Your task to perform on an android device: Search for "dell alienware" on ebay, select the first entry, and add it to the cart. Image 0: 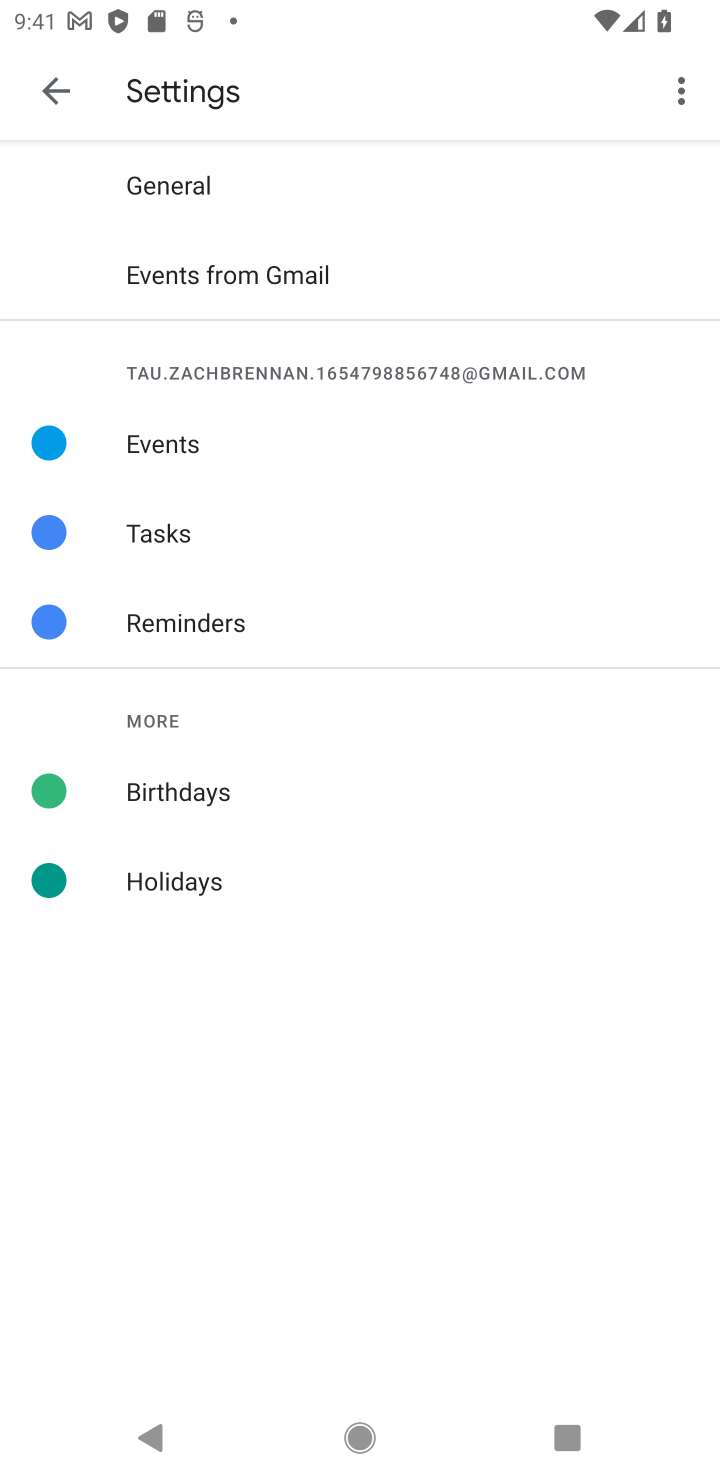
Step 0: press home button
Your task to perform on an android device: Search for "dell alienware" on ebay, select the first entry, and add it to the cart. Image 1: 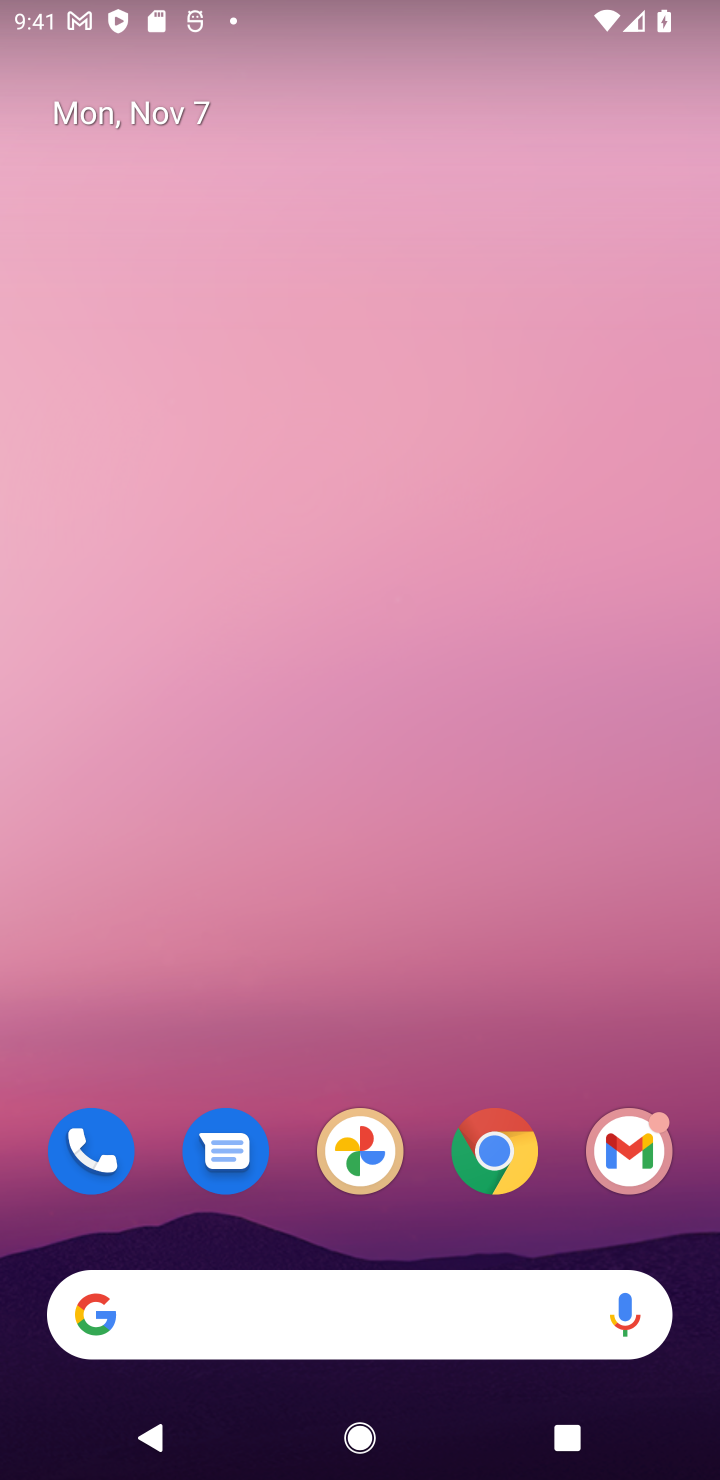
Step 1: click (487, 1156)
Your task to perform on an android device: Search for "dell alienware" on ebay, select the first entry, and add it to the cart. Image 2: 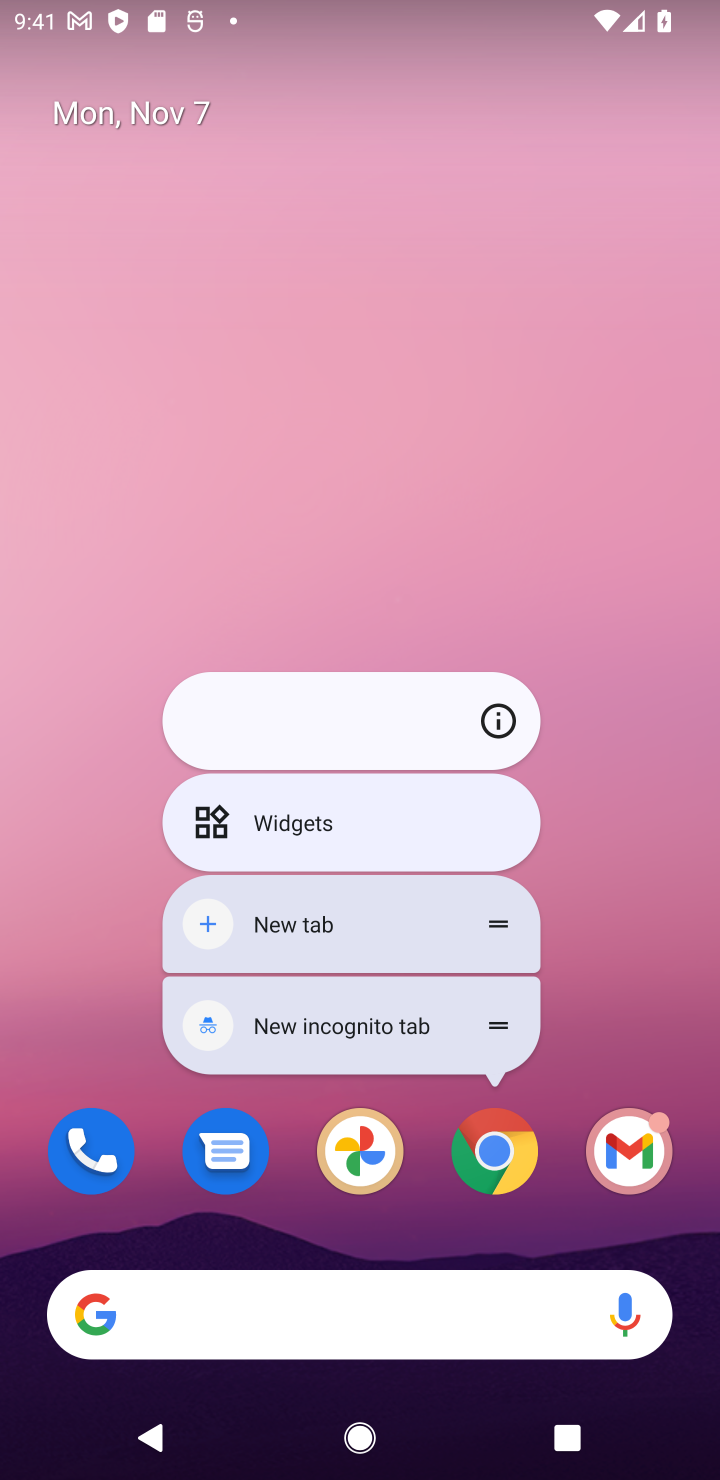
Step 2: click (487, 1158)
Your task to perform on an android device: Search for "dell alienware" on ebay, select the first entry, and add it to the cart. Image 3: 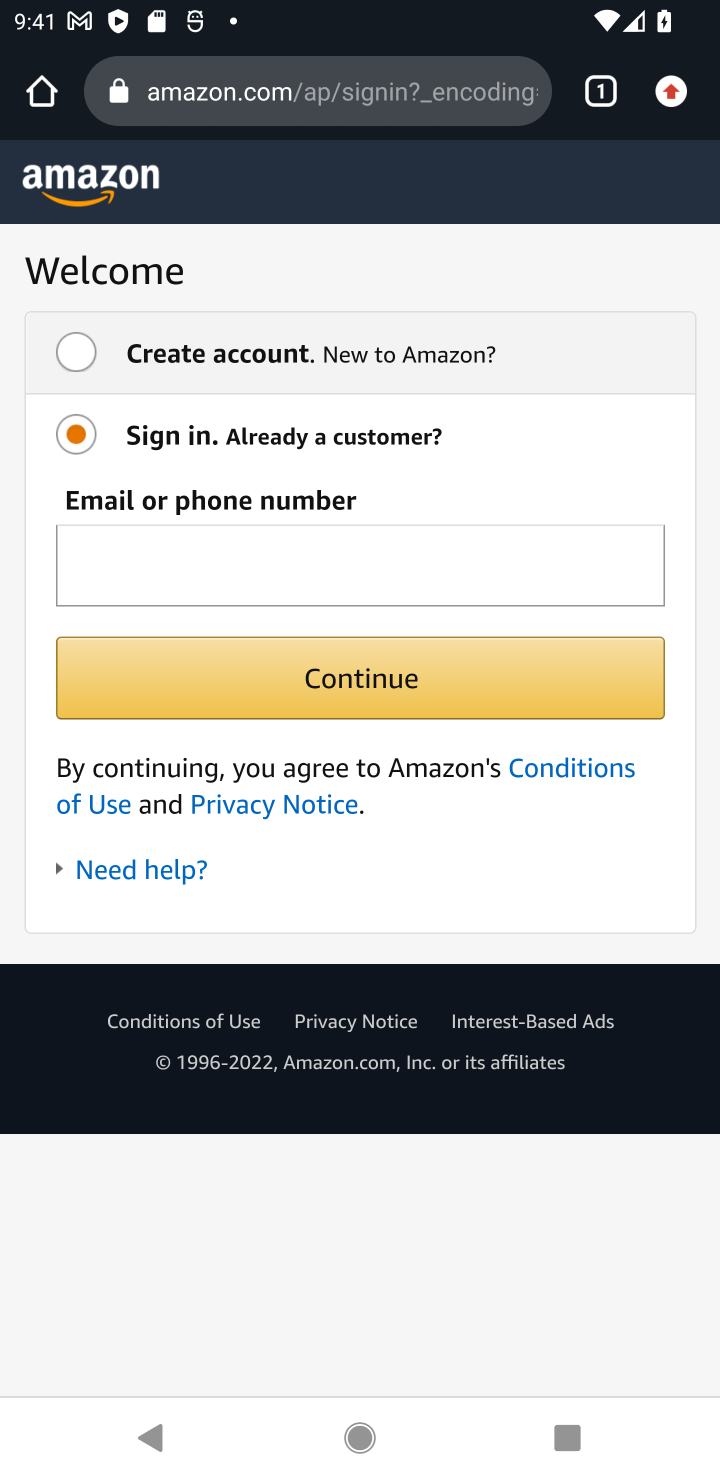
Step 3: click (325, 98)
Your task to perform on an android device: Search for "dell alienware" on ebay, select the first entry, and add it to the cart. Image 4: 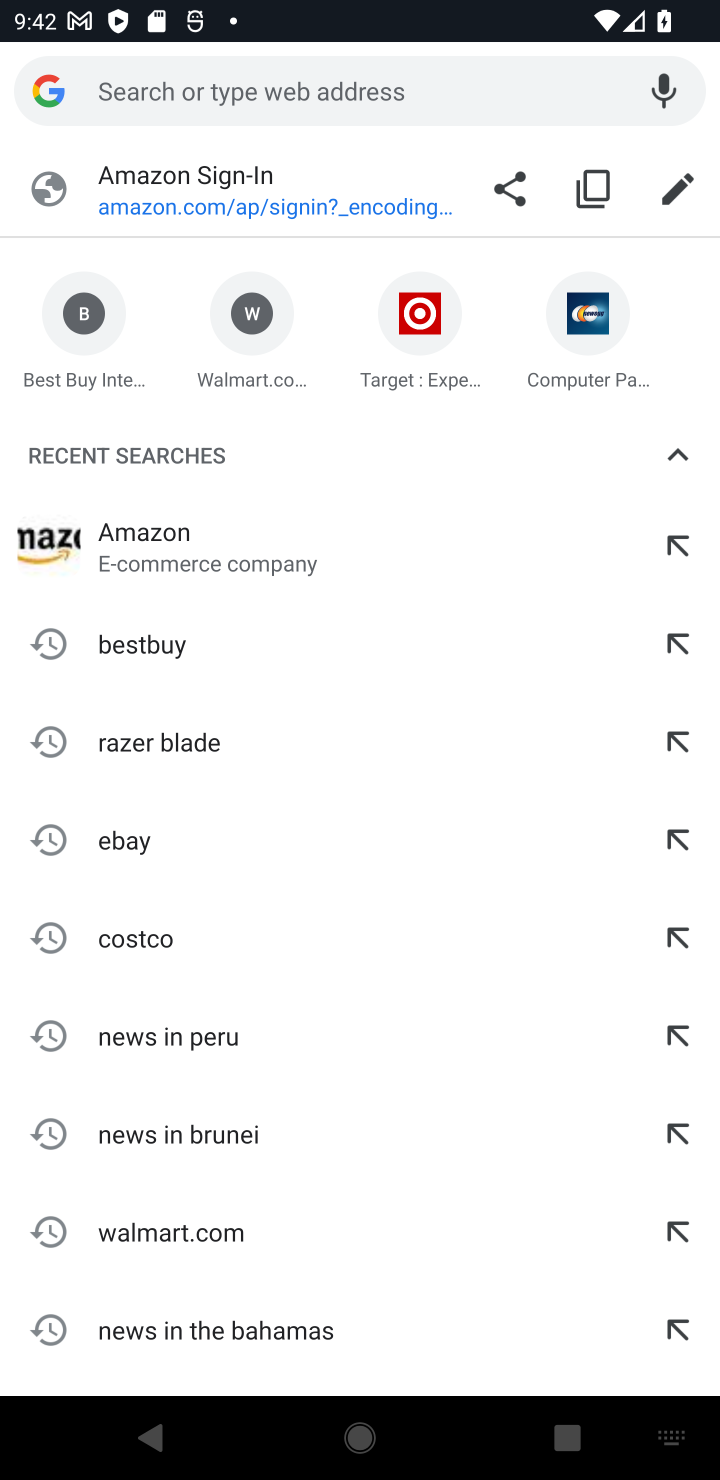
Step 4: click (127, 834)
Your task to perform on an android device: Search for "dell alienware" on ebay, select the first entry, and add it to the cart. Image 5: 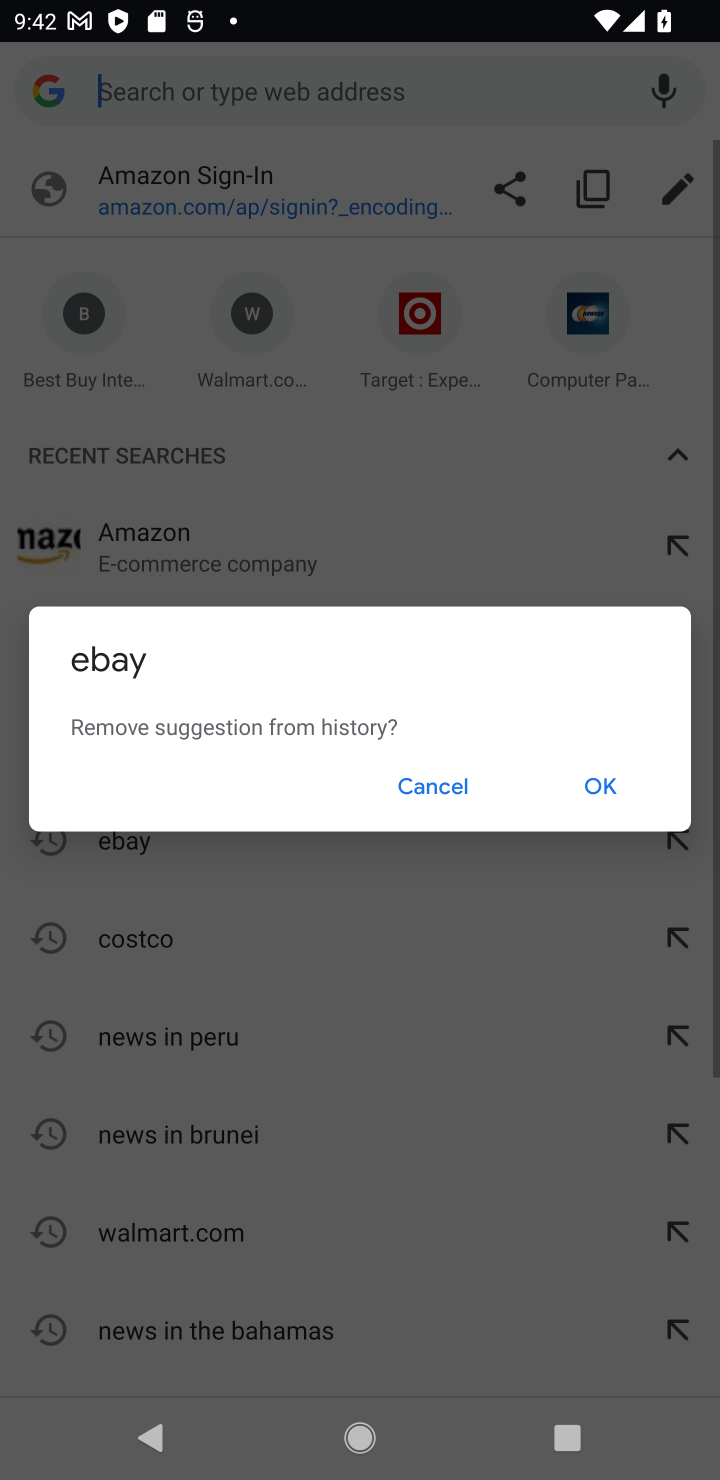
Step 5: click (445, 783)
Your task to perform on an android device: Search for "dell alienware" on ebay, select the first entry, and add it to the cart. Image 6: 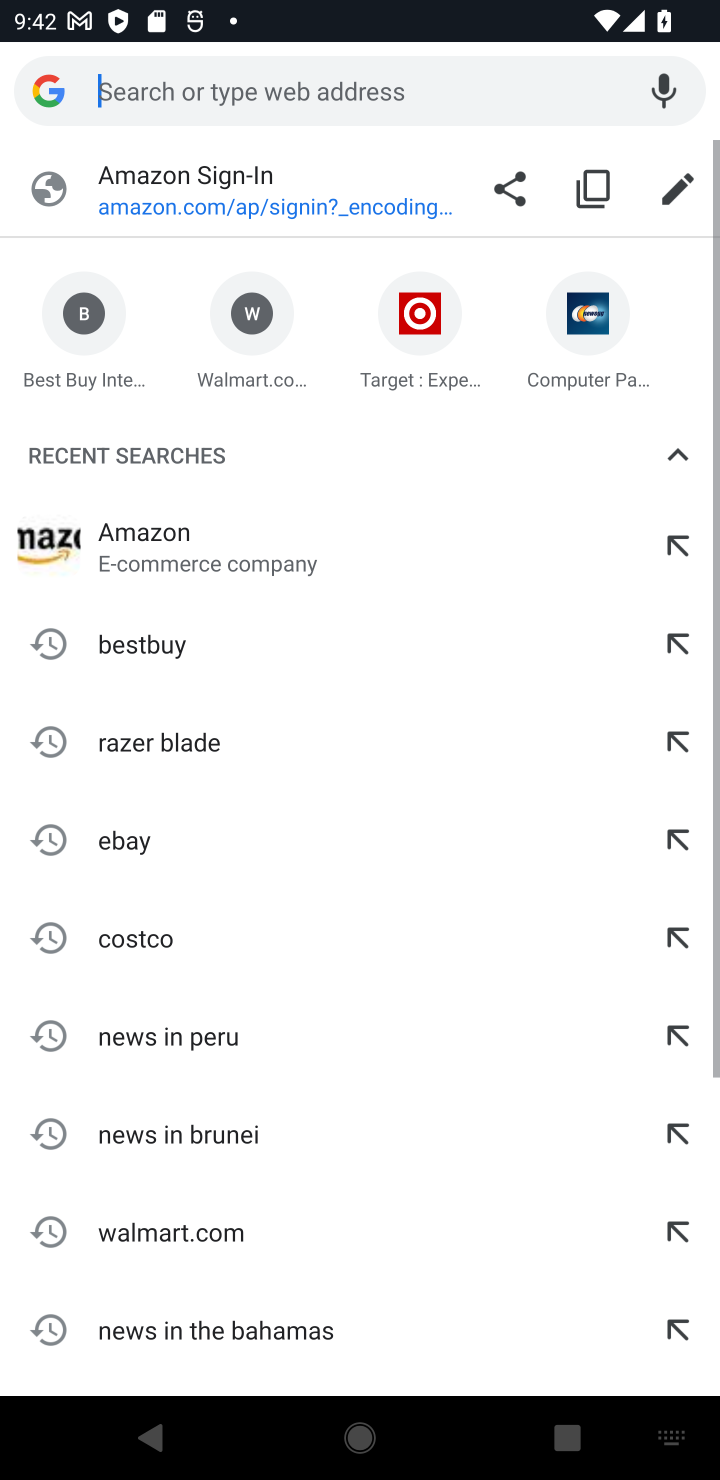
Step 6: click (103, 835)
Your task to perform on an android device: Search for "dell alienware" on ebay, select the first entry, and add it to the cart. Image 7: 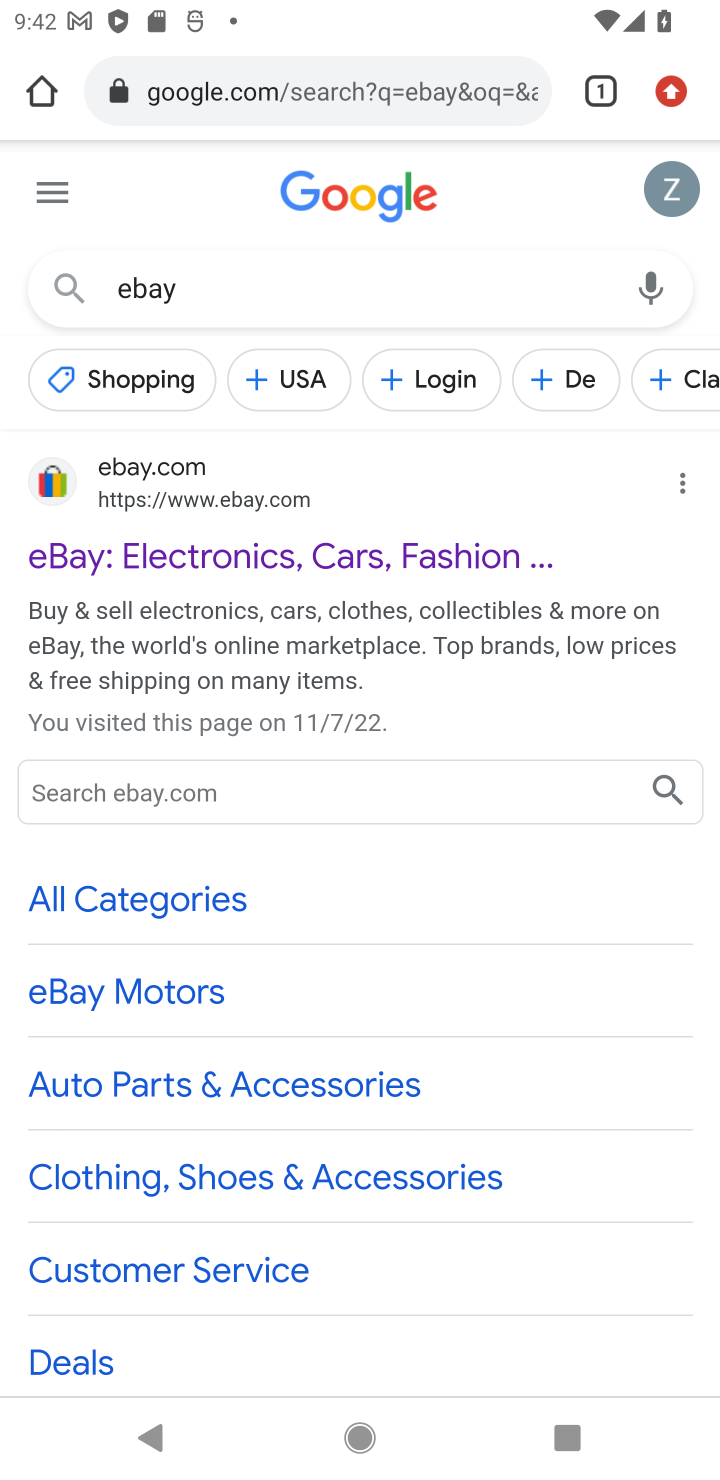
Step 7: click (242, 548)
Your task to perform on an android device: Search for "dell alienware" on ebay, select the first entry, and add it to the cart. Image 8: 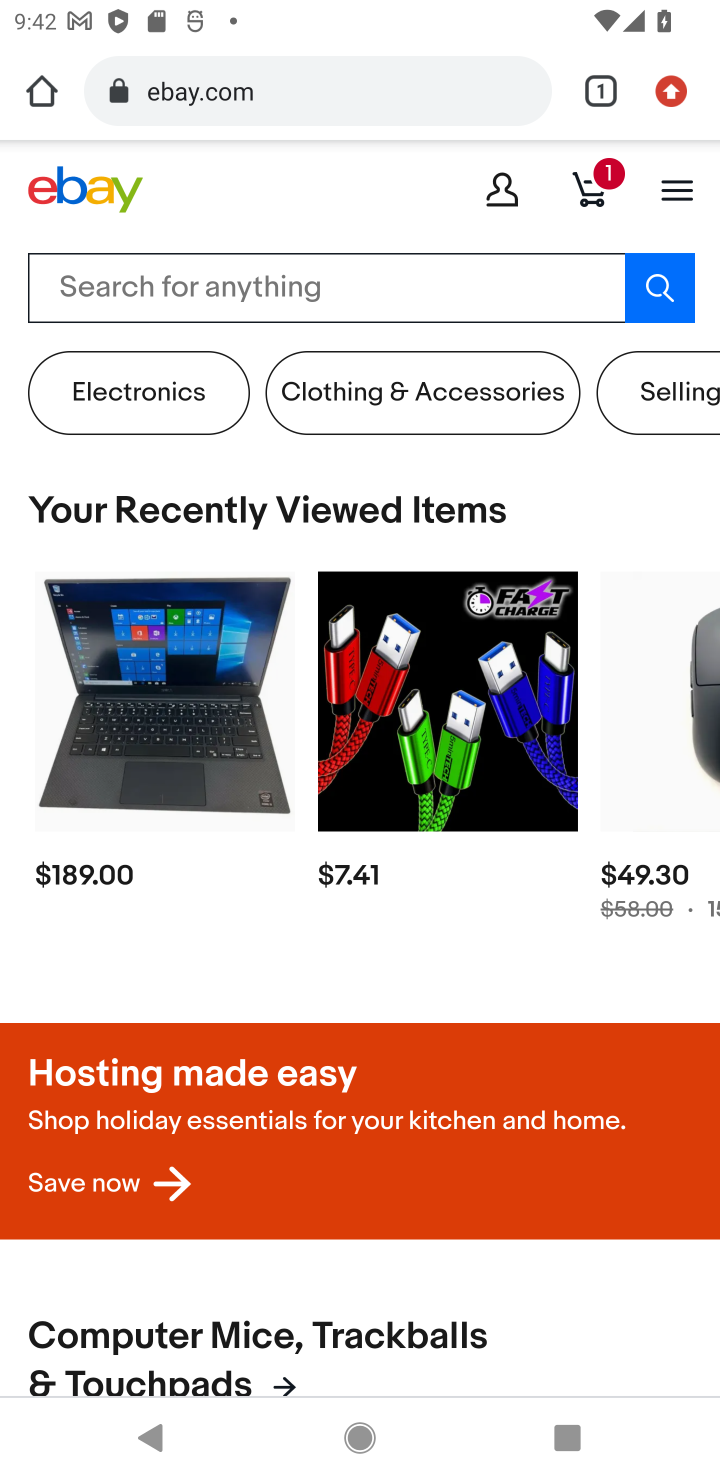
Step 8: click (142, 284)
Your task to perform on an android device: Search for "dell alienware" on ebay, select the first entry, and add it to the cart. Image 9: 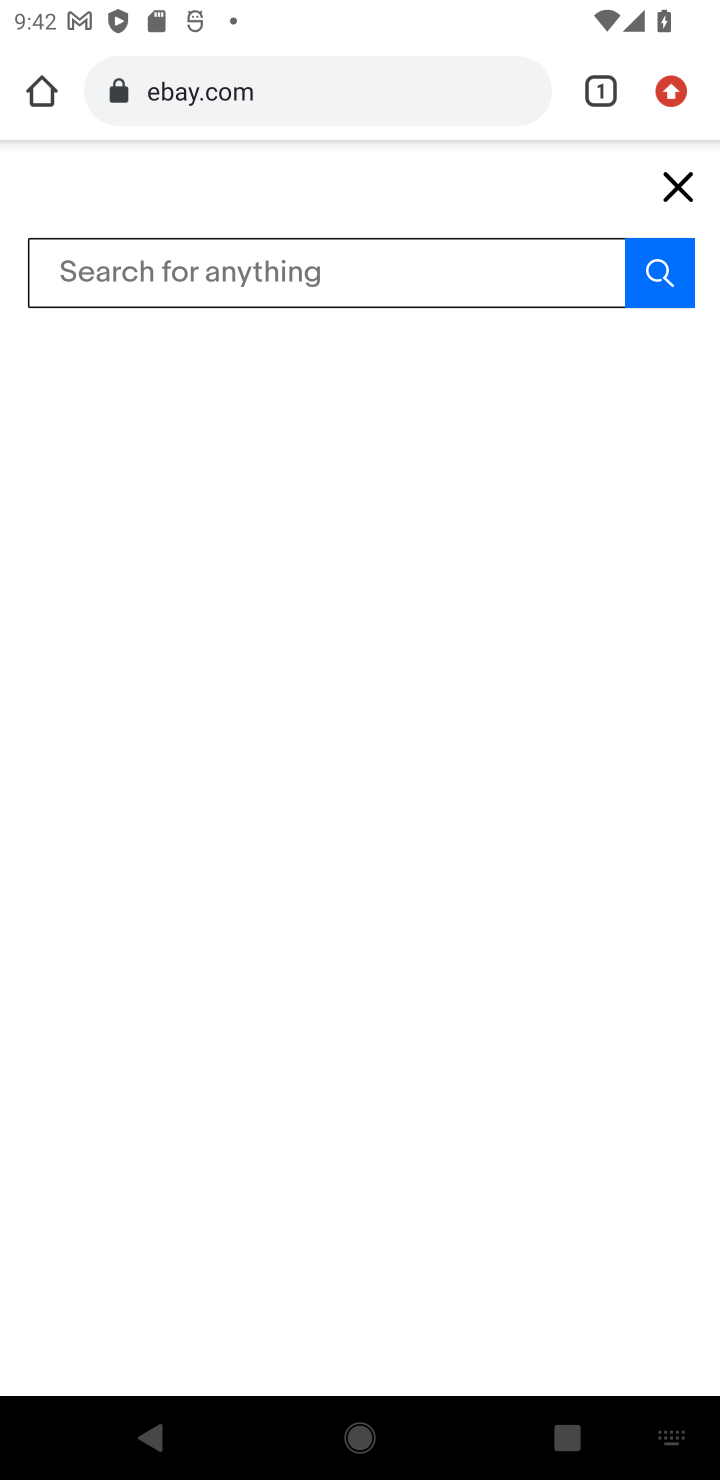
Step 9: press enter
Your task to perform on an android device: Search for "dell alienware" on ebay, select the first entry, and add it to the cart. Image 10: 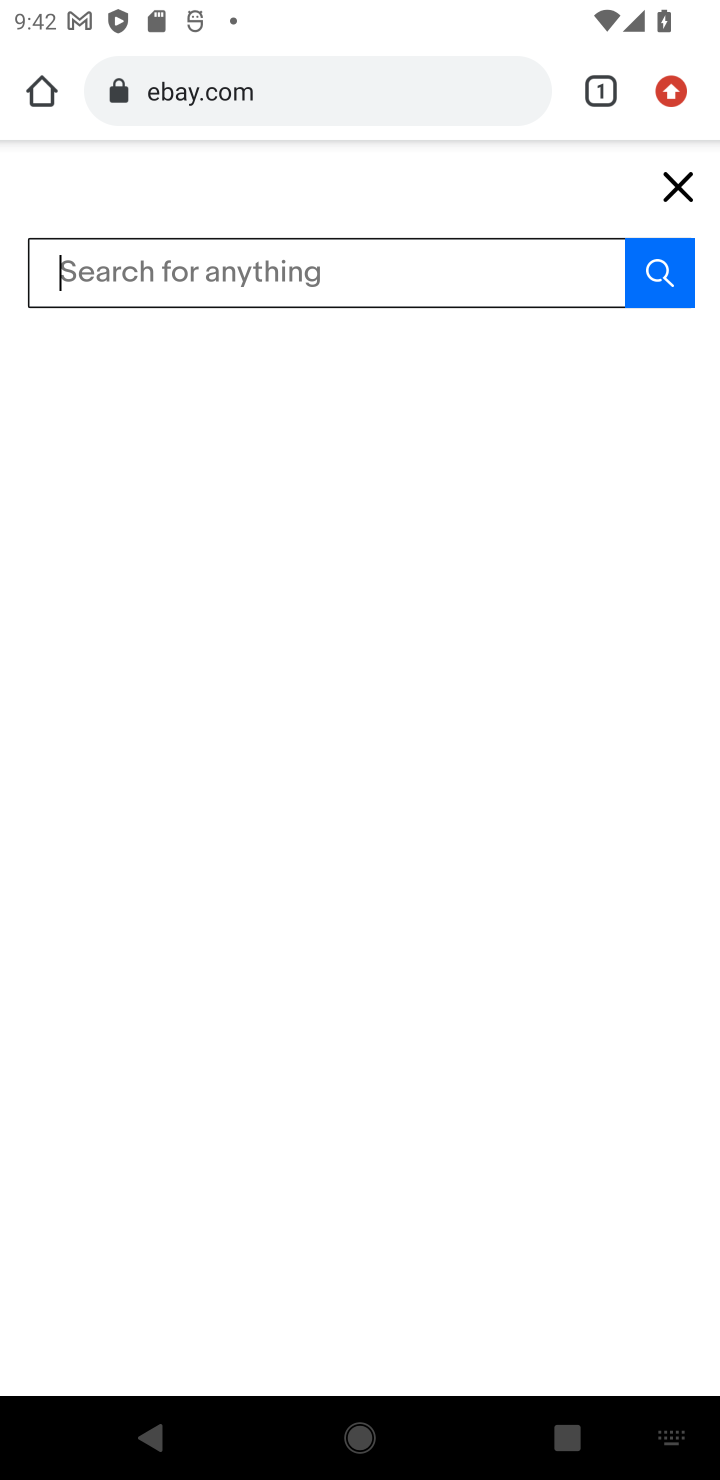
Step 10: type "dell alienware"
Your task to perform on an android device: Search for "dell alienware" on ebay, select the first entry, and add it to the cart. Image 11: 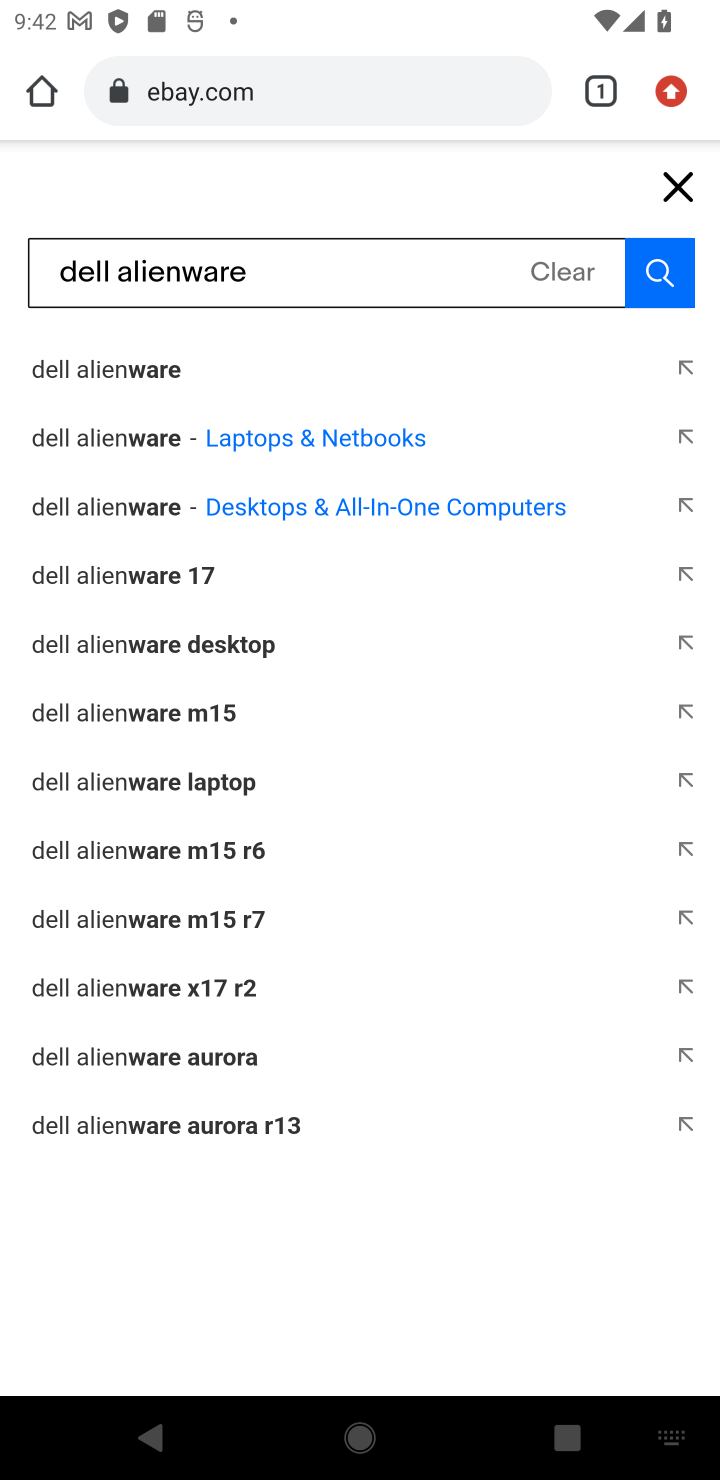
Step 11: press enter
Your task to perform on an android device: Search for "dell alienware" on ebay, select the first entry, and add it to the cart. Image 12: 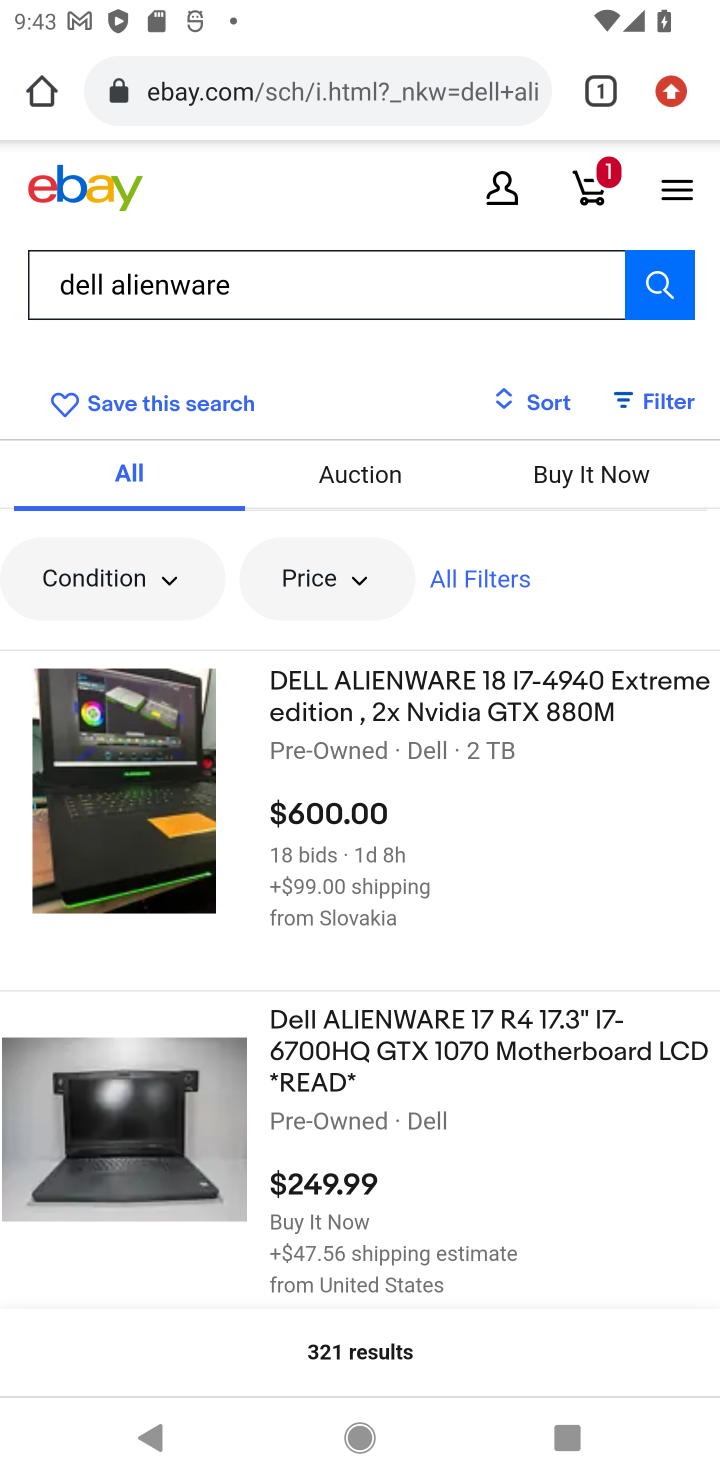
Step 12: click (416, 765)
Your task to perform on an android device: Search for "dell alienware" on ebay, select the first entry, and add it to the cart. Image 13: 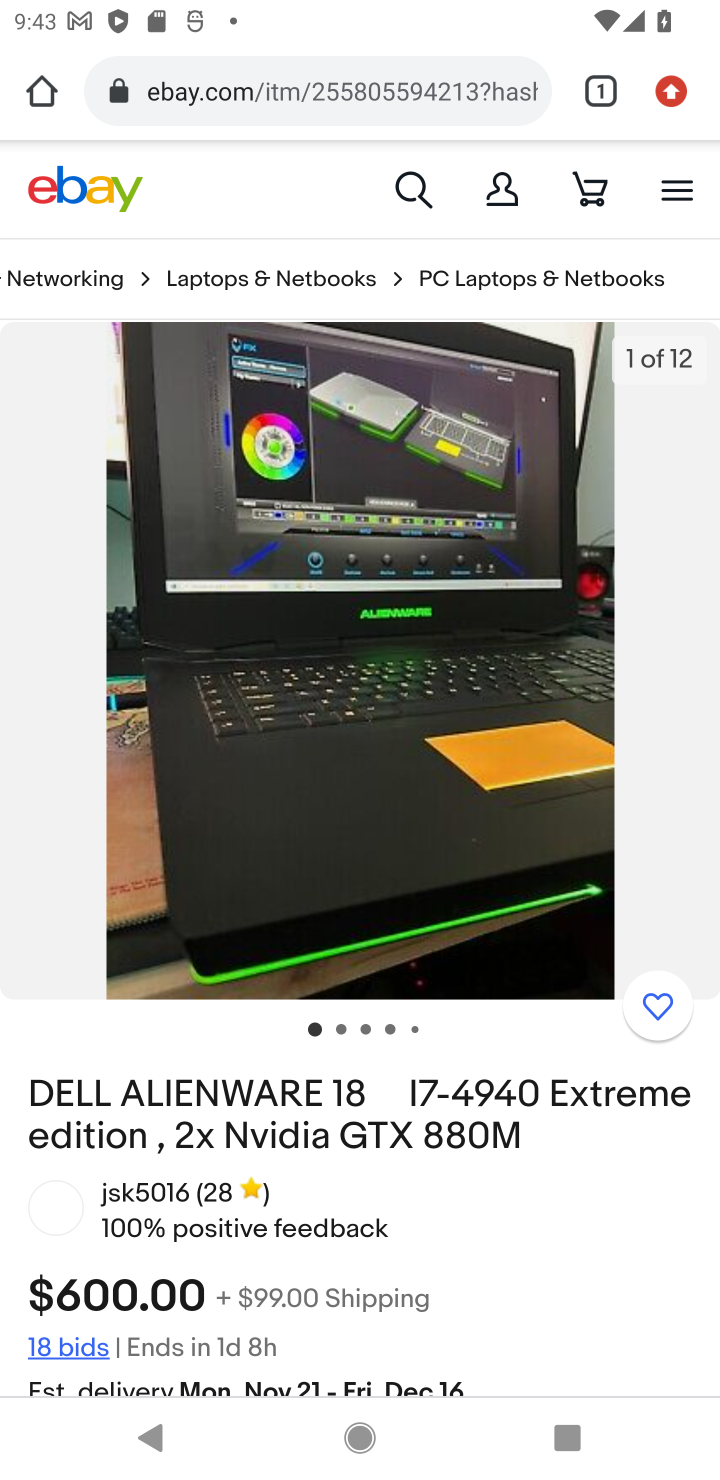
Step 13: task complete